Your task to perform on an android device: turn notification dots off Image 0: 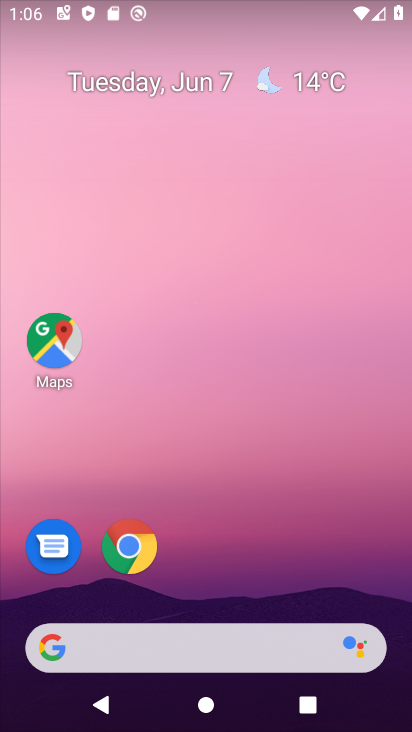
Step 0: drag from (298, 591) to (297, 77)
Your task to perform on an android device: turn notification dots off Image 1: 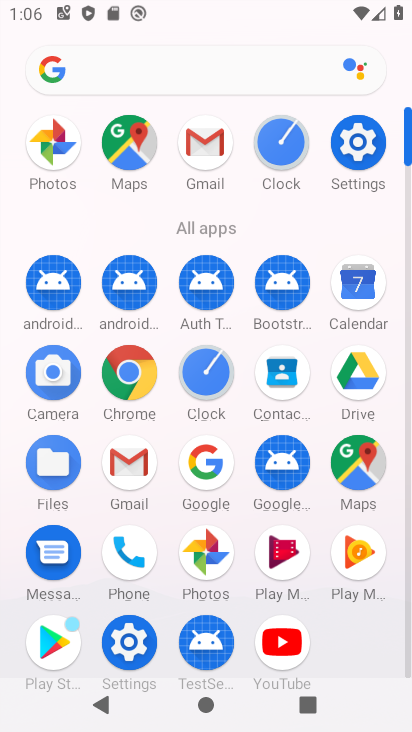
Step 1: click (358, 146)
Your task to perform on an android device: turn notification dots off Image 2: 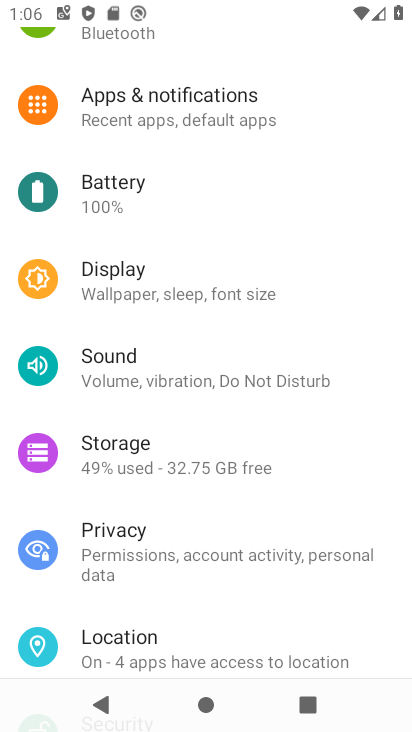
Step 2: click (302, 105)
Your task to perform on an android device: turn notification dots off Image 3: 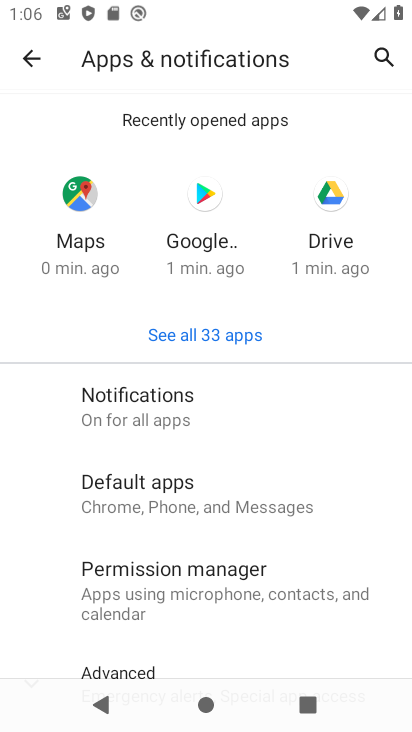
Step 3: drag from (359, 652) to (356, 324)
Your task to perform on an android device: turn notification dots off Image 4: 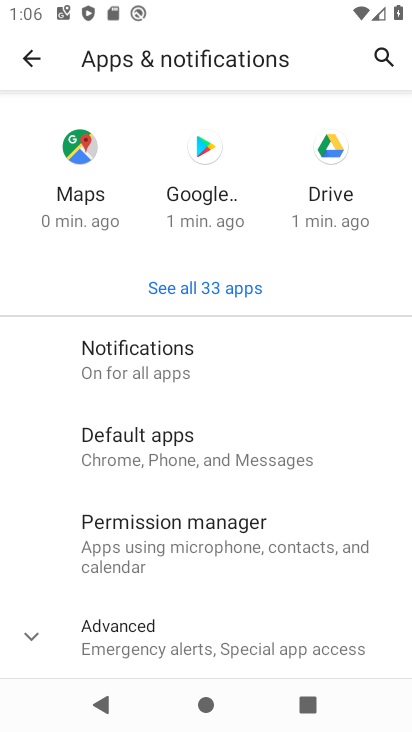
Step 4: click (154, 345)
Your task to perform on an android device: turn notification dots off Image 5: 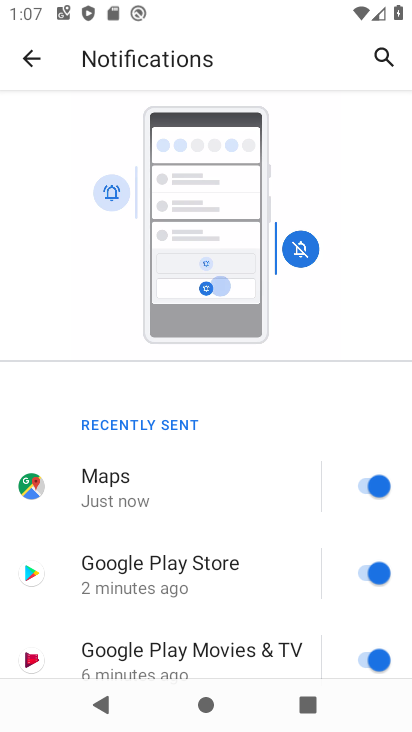
Step 5: drag from (269, 631) to (269, 153)
Your task to perform on an android device: turn notification dots off Image 6: 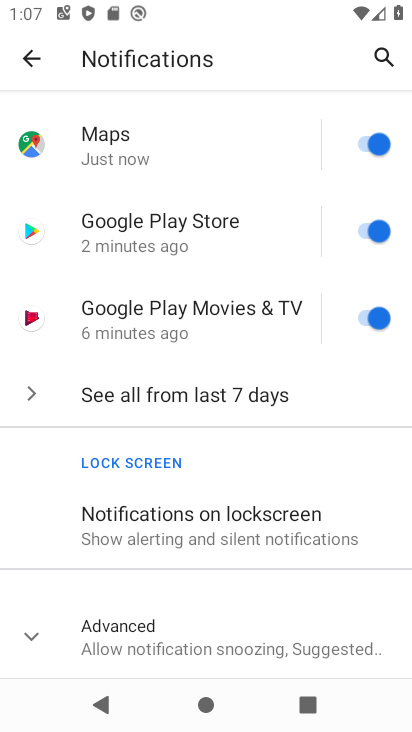
Step 6: click (33, 641)
Your task to perform on an android device: turn notification dots off Image 7: 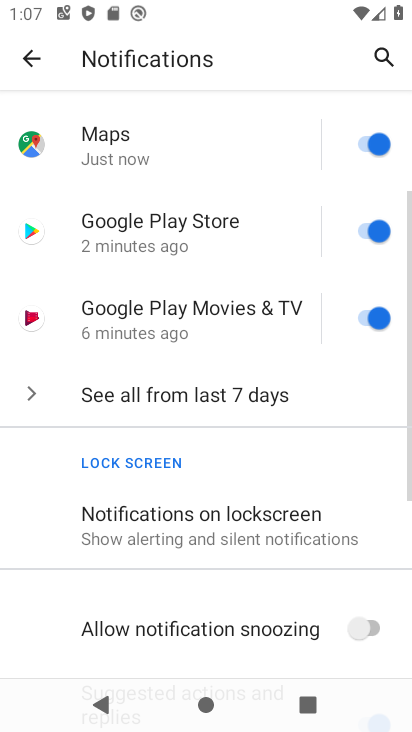
Step 7: drag from (329, 585) to (335, 271)
Your task to perform on an android device: turn notification dots off Image 8: 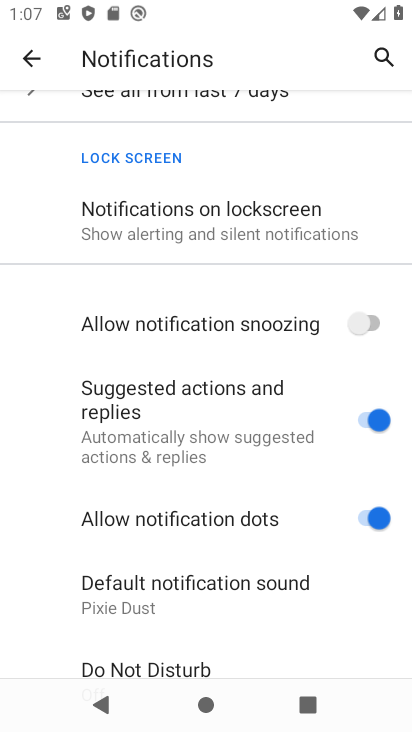
Step 8: click (368, 516)
Your task to perform on an android device: turn notification dots off Image 9: 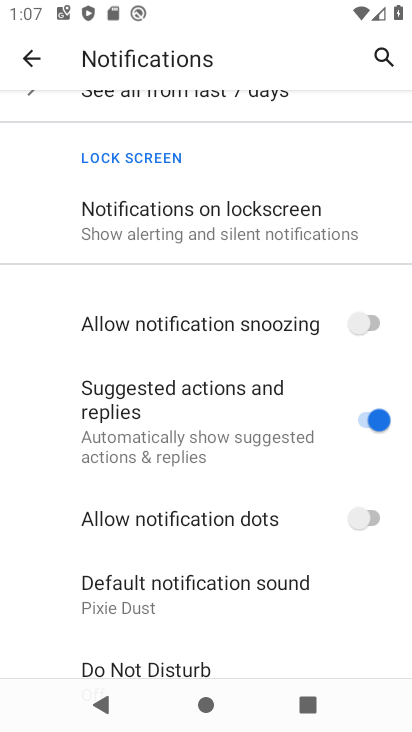
Step 9: task complete